Your task to perform on an android device: Go to privacy settings Image 0: 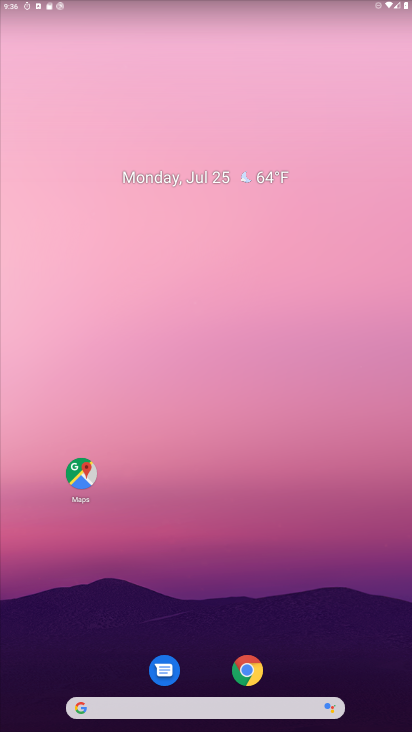
Step 0: drag from (394, 654) to (211, 59)
Your task to perform on an android device: Go to privacy settings Image 1: 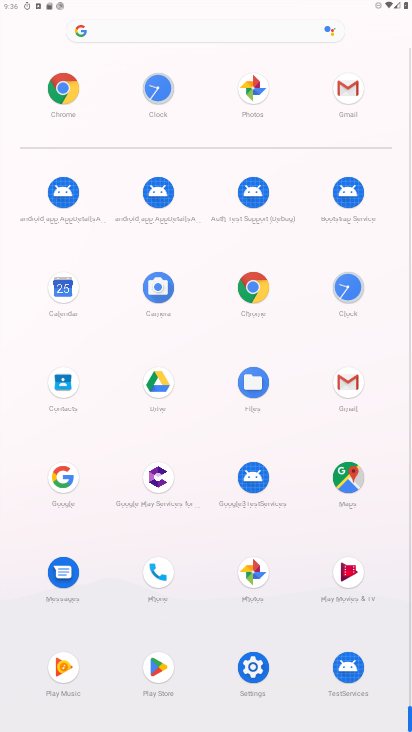
Step 1: click (238, 667)
Your task to perform on an android device: Go to privacy settings Image 2: 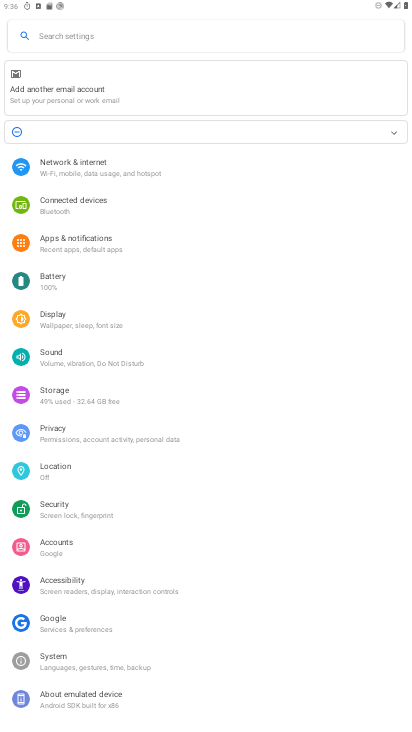
Step 2: click (45, 422)
Your task to perform on an android device: Go to privacy settings Image 3: 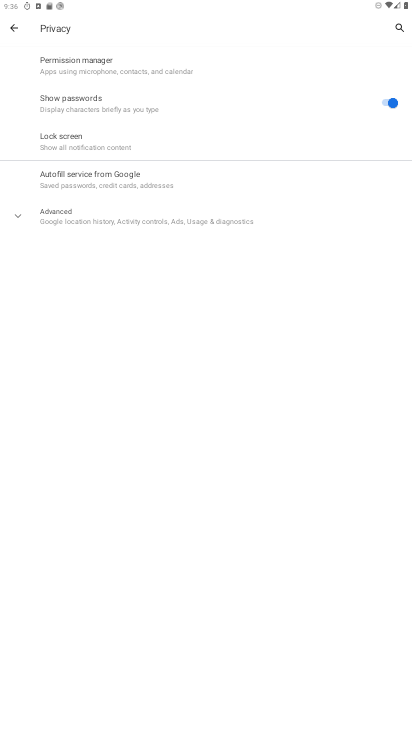
Step 3: task complete